Your task to perform on an android device: open app "Chime – Mobile Banking" (install if not already installed) and enter user name: "bullfrog@inbox.com" and password: "breaker" Image 0: 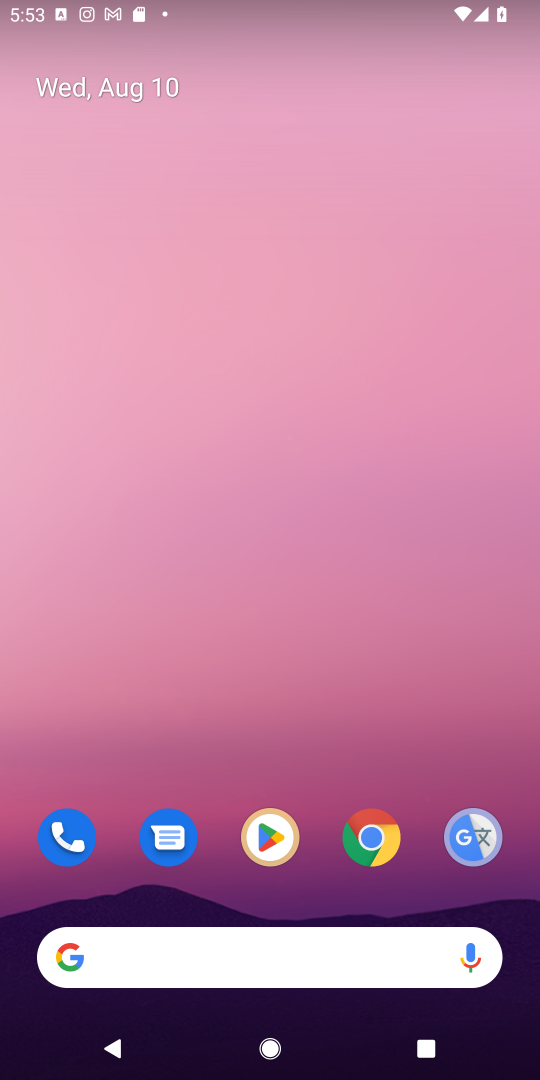
Step 0: press home button
Your task to perform on an android device: open app "Chime – Mobile Banking" (install if not already installed) and enter user name: "bullfrog@inbox.com" and password: "breaker" Image 1: 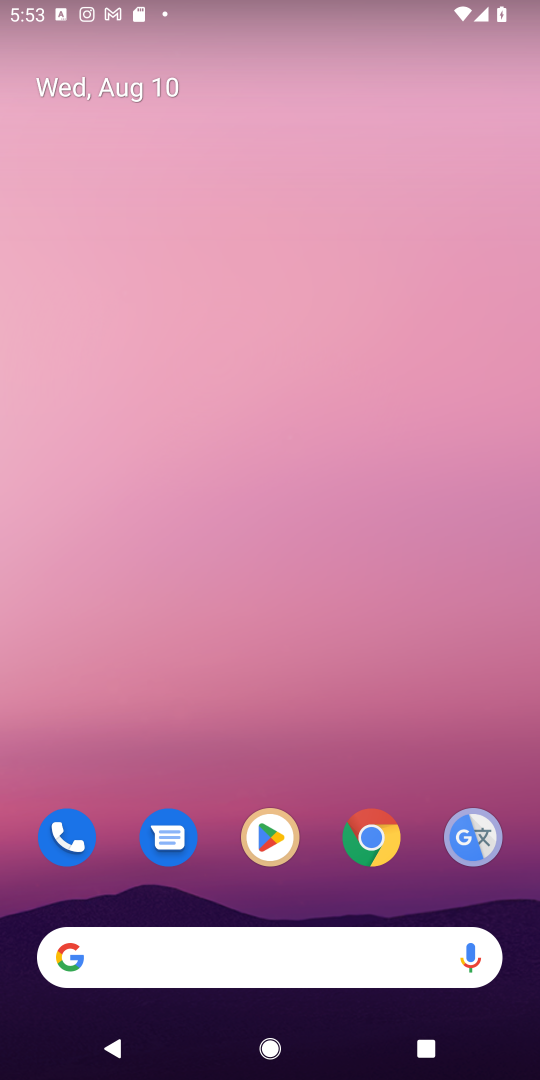
Step 1: click (271, 840)
Your task to perform on an android device: open app "Chime – Mobile Banking" (install if not already installed) and enter user name: "bullfrog@inbox.com" and password: "breaker" Image 2: 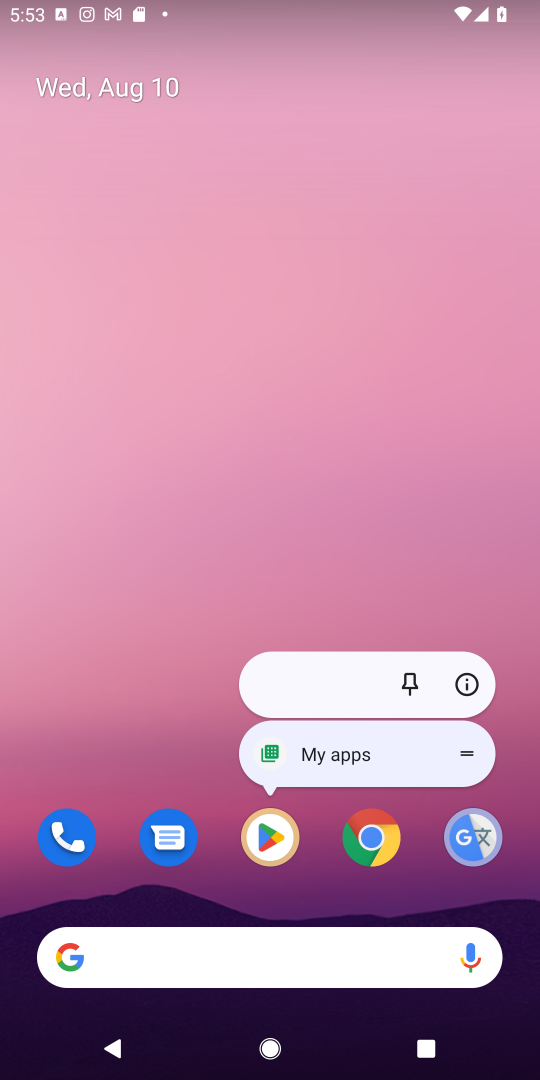
Step 2: click (269, 838)
Your task to perform on an android device: open app "Chime – Mobile Banking" (install if not already installed) and enter user name: "bullfrog@inbox.com" and password: "breaker" Image 3: 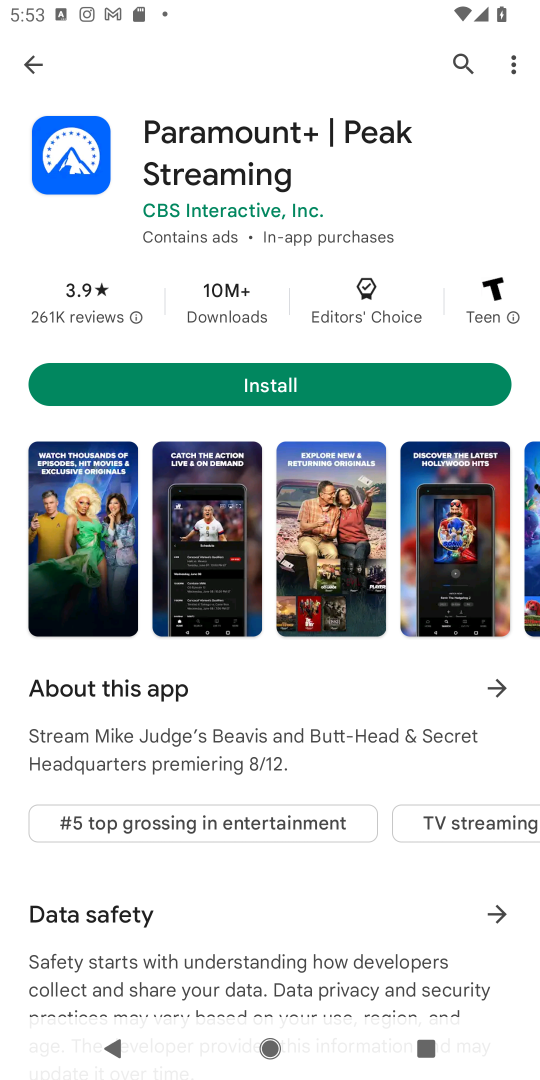
Step 3: click (460, 55)
Your task to perform on an android device: open app "Chime – Mobile Banking" (install if not already installed) and enter user name: "bullfrog@inbox.com" and password: "breaker" Image 4: 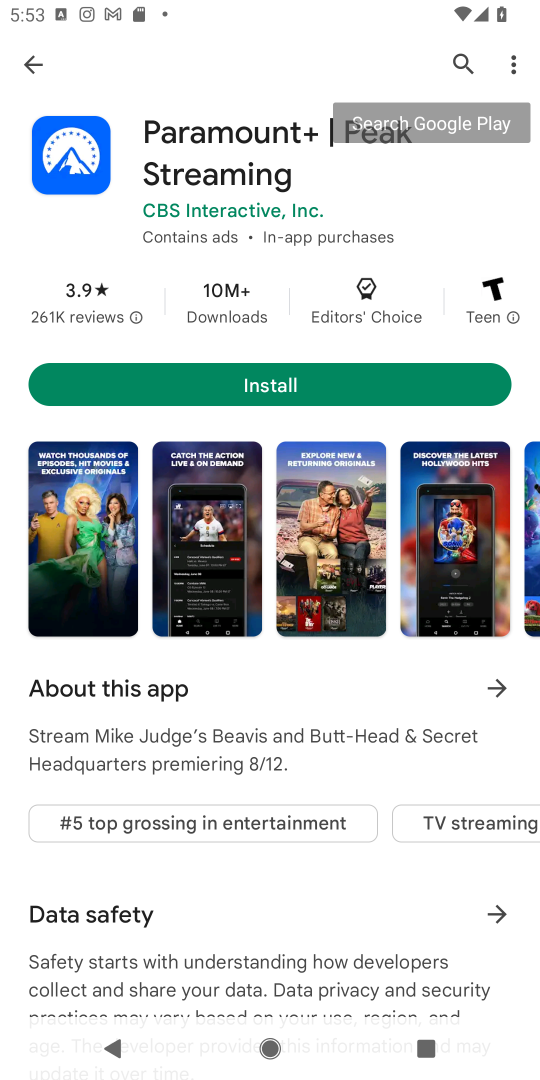
Step 4: click (460, 61)
Your task to perform on an android device: open app "Chime – Mobile Banking" (install if not already installed) and enter user name: "bullfrog@inbox.com" and password: "breaker" Image 5: 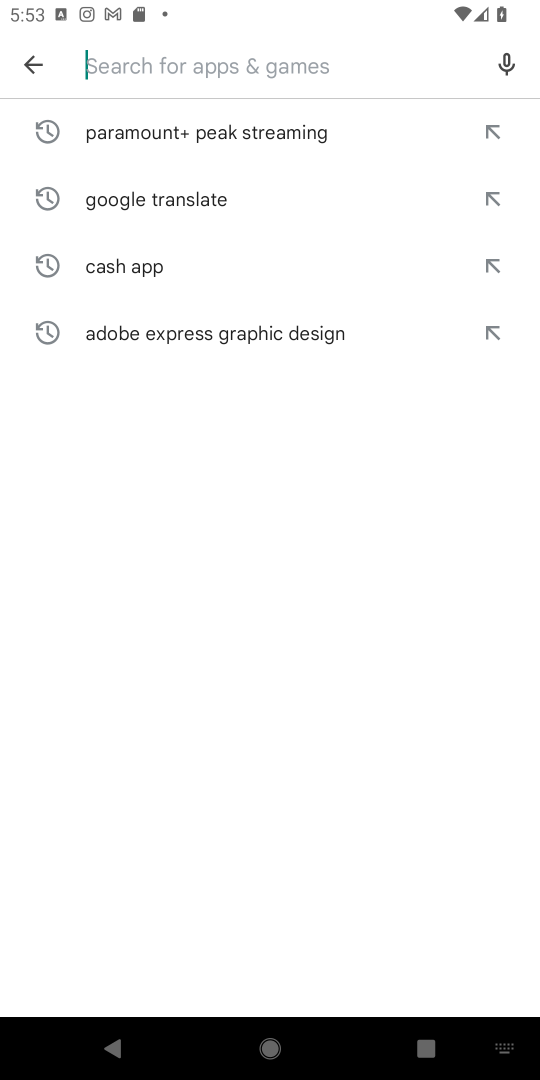
Step 5: type "Chime – Mobile Banking"
Your task to perform on an android device: open app "Chime – Mobile Banking" (install if not already installed) and enter user name: "bullfrog@inbox.com" and password: "breaker" Image 6: 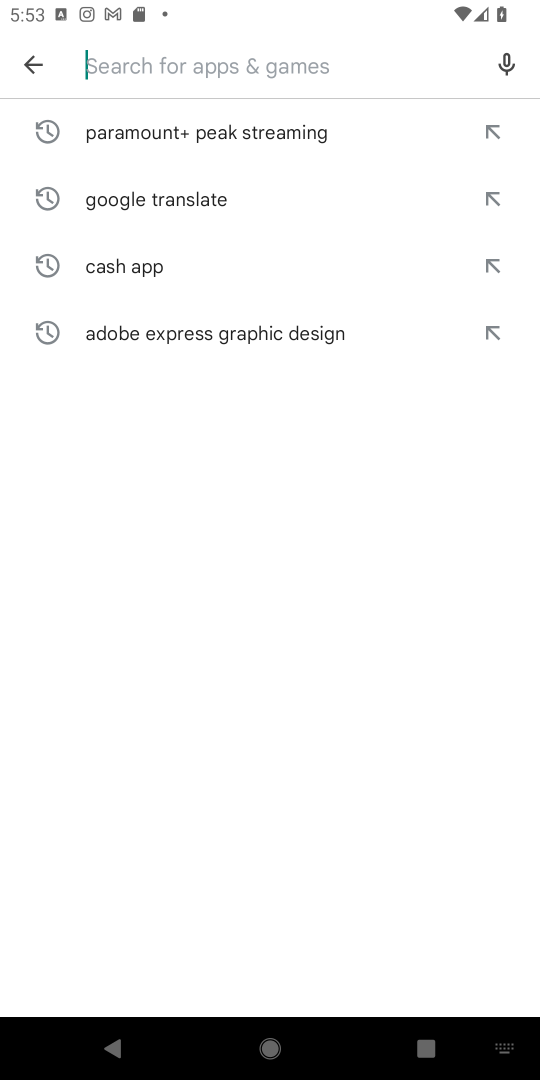
Step 6: type "Chime Mobile Banking"
Your task to perform on an android device: open app "Chime – Mobile Banking" (install if not already installed) and enter user name: "bullfrog@inbox.com" and password: "breaker" Image 7: 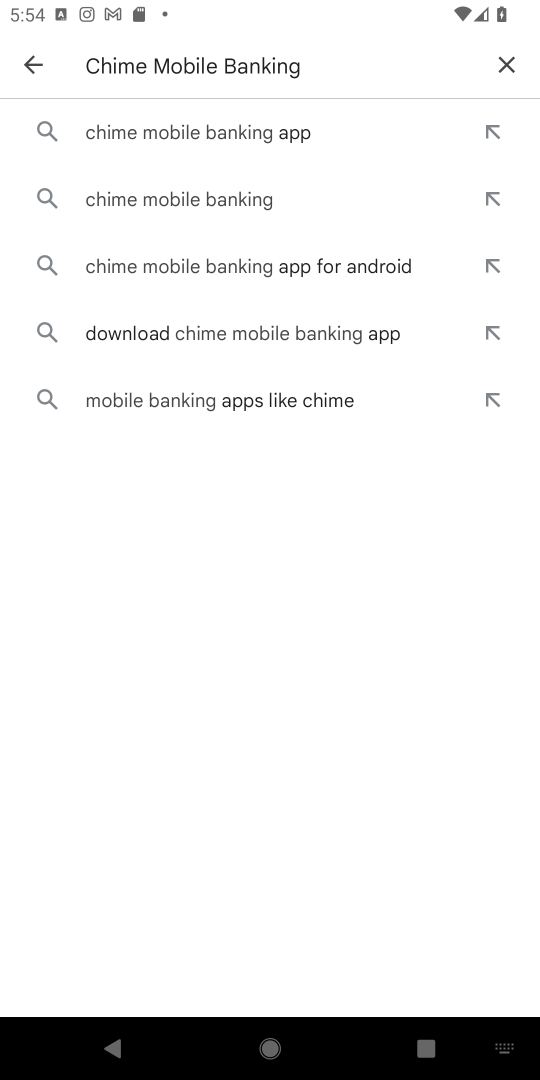
Step 7: click (205, 126)
Your task to perform on an android device: open app "Chime – Mobile Banking" (install if not already installed) and enter user name: "bullfrog@inbox.com" and password: "breaker" Image 8: 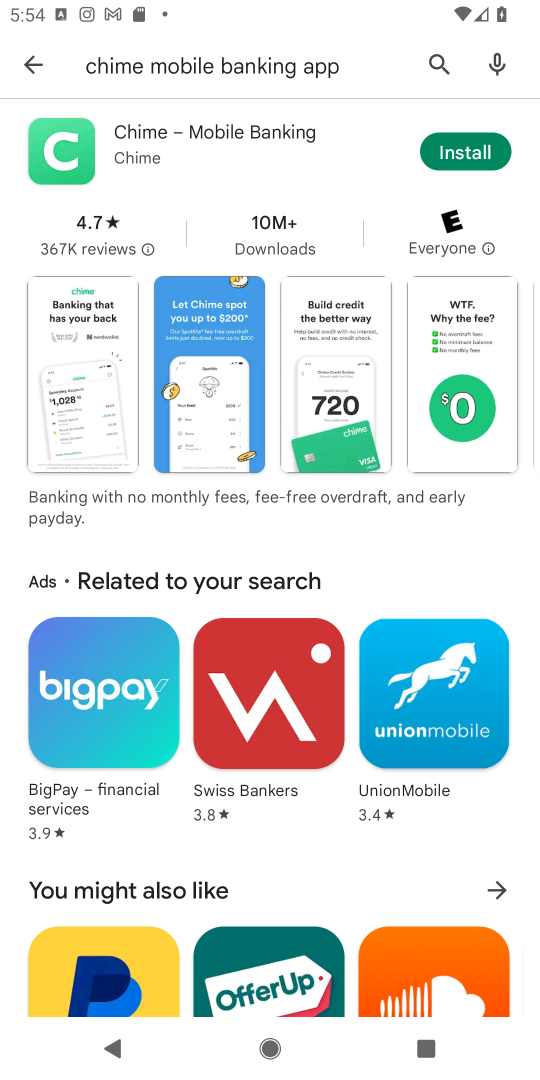
Step 8: click (468, 149)
Your task to perform on an android device: open app "Chime – Mobile Banking" (install if not already installed) and enter user name: "bullfrog@inbox.com" and password: "breaker" Image 9: 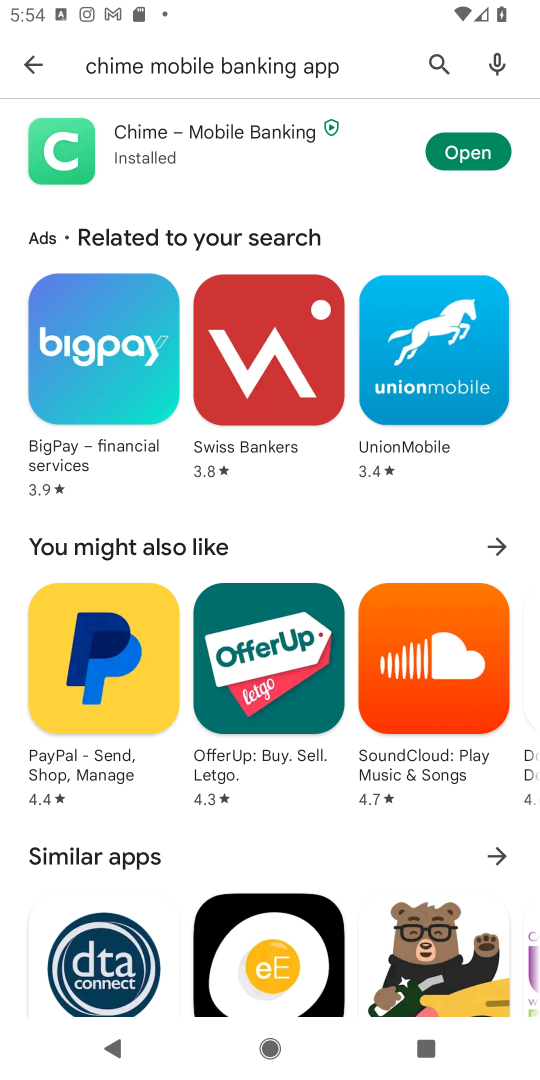
Step 9: click (468, 148)
Your task to perform on an android device: open app "Chime – Mobile Banking" (install if not already installed) and enter user name: "bullfrog@inbox.com" and password: "breaker" Image 10: 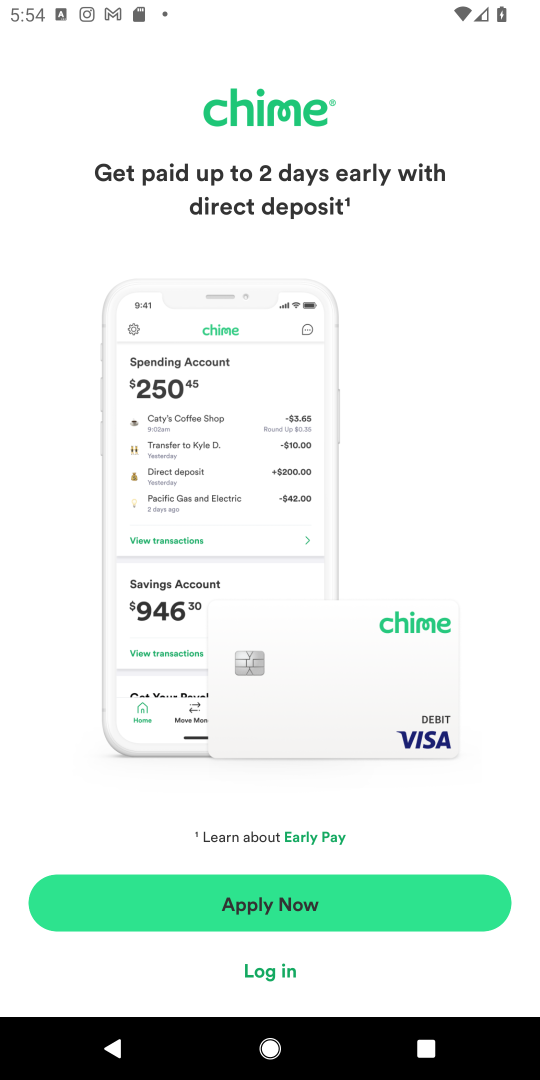
Step 10: click (284, 975)
Your task to perform on an android device: open app "Chime – Mobile Banking" (install if not already installed) and enter user name: "bullfrog@inbox.com" and password: "breaker" Image 11: 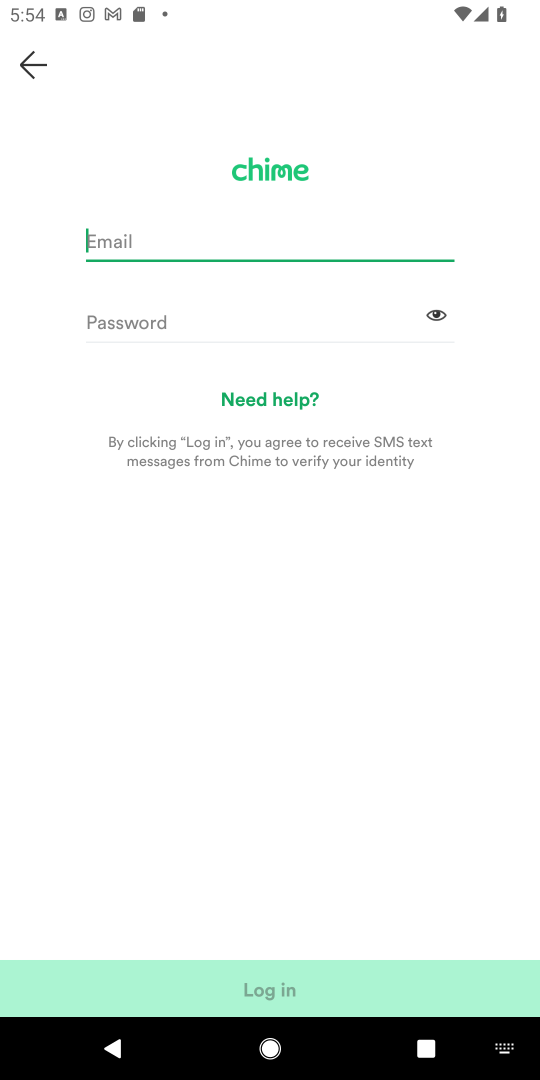
Step 11: type "bullfrog@inbox.com"
Your task to perform on an android device: open app "Chime – Mobile Banking" (install if not already installed) and enter user name: "bullfrog@inbox.com" and password: "breaker" Image 12: 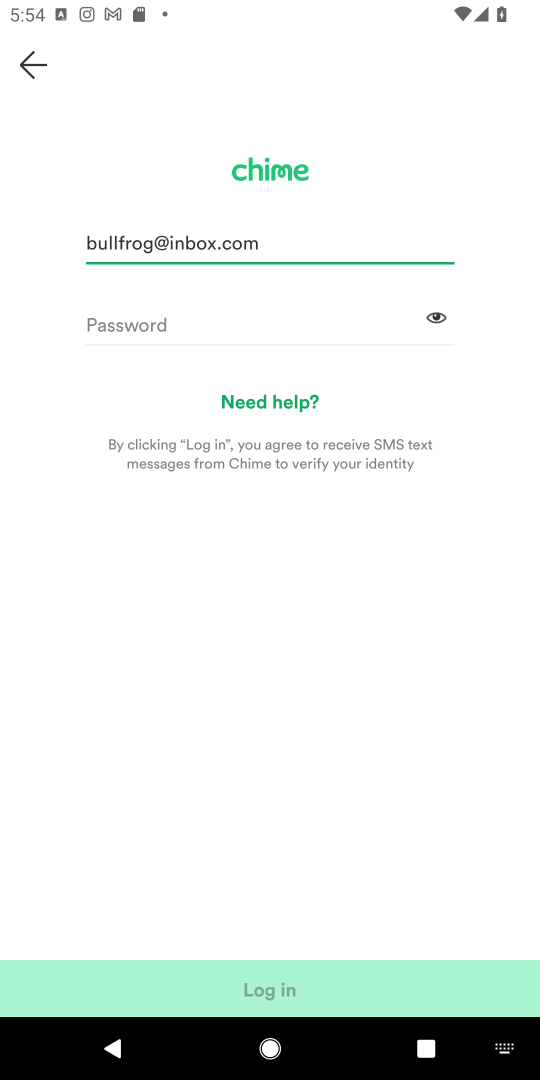
Step 12: click (130, 306)
Your task to perform on an android device: open app "Chime – Mobile Banking" (install if not already installed) and enter user name: "bullfrog@inbox.com" and password: "breaker" Image 13: 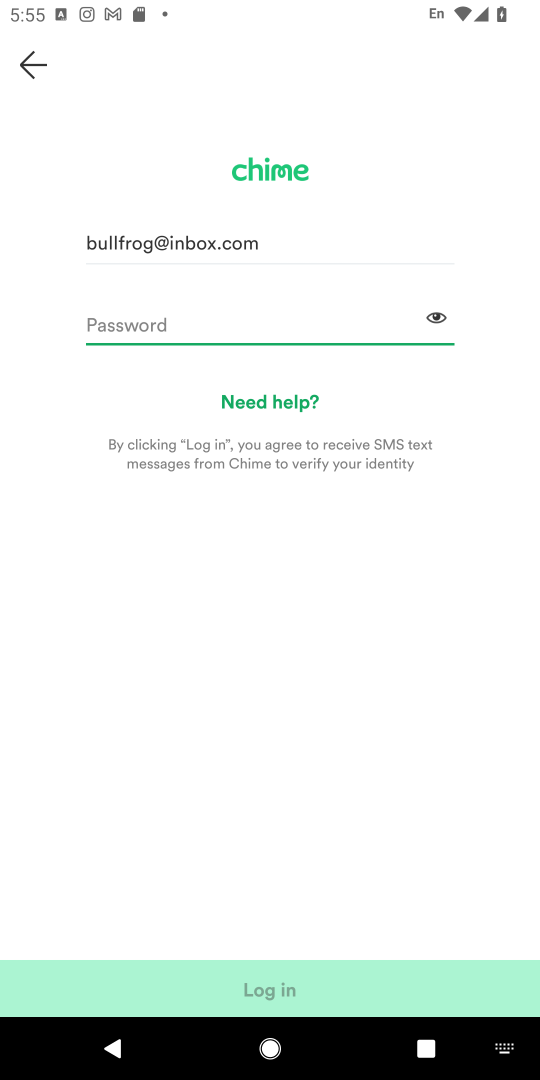
Step 13: type "breaker"
Your task to perform on an android device: open app "Chime – Mobile Banking" (install if not already installed) and enter user name: "bullfrog@inbox.com" and password: "breaker" Image 14: 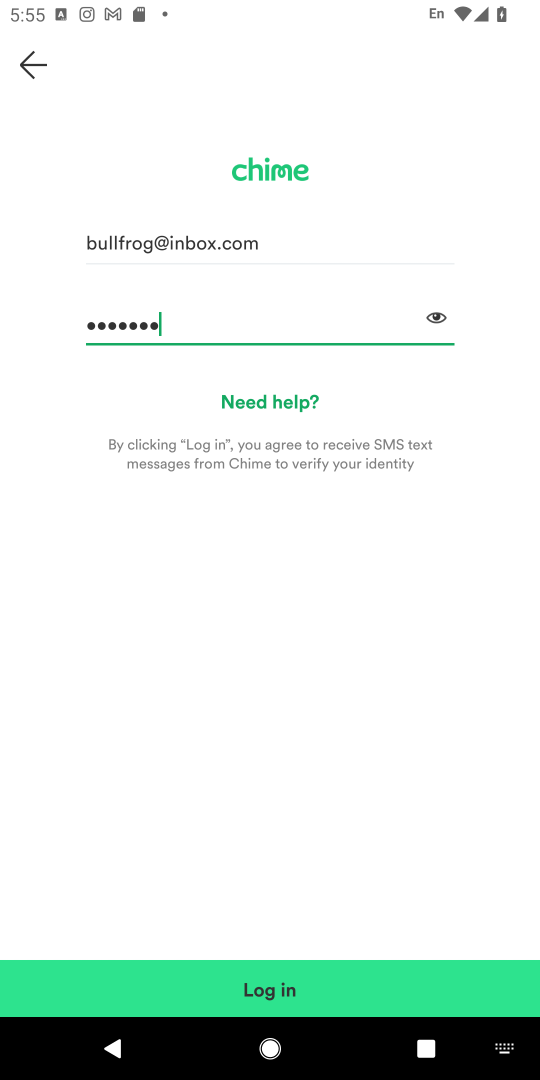
Step 14: task complete